Your task to perform on an android device: Open the Play Movies app and select the watchlist tab. Image 0: 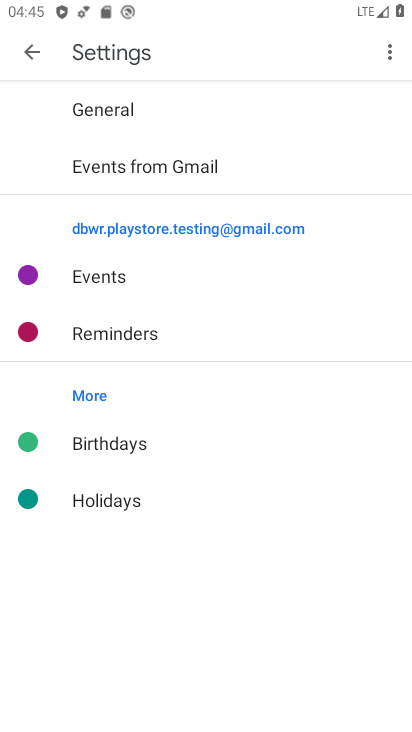
Step 0: press back button
Your task to perform on an android device: Open the Play Movies app and select the watchlist tab. Image 1: 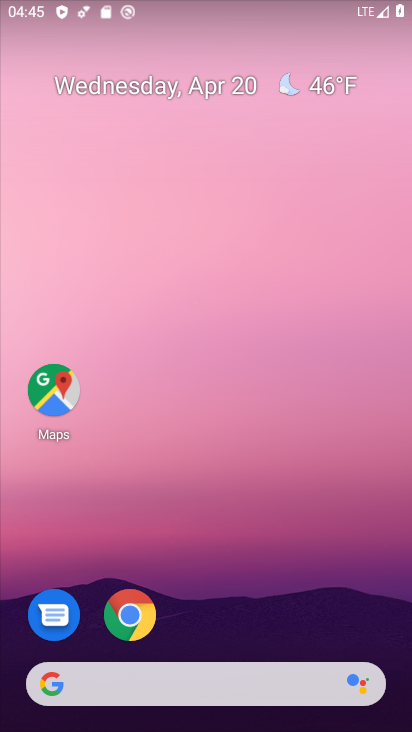
Step 1: drag from (247, 515) to (353, 205)
Your task to perform on an android device: Open the Play Movies app and select the watchlist tab. Image 2: 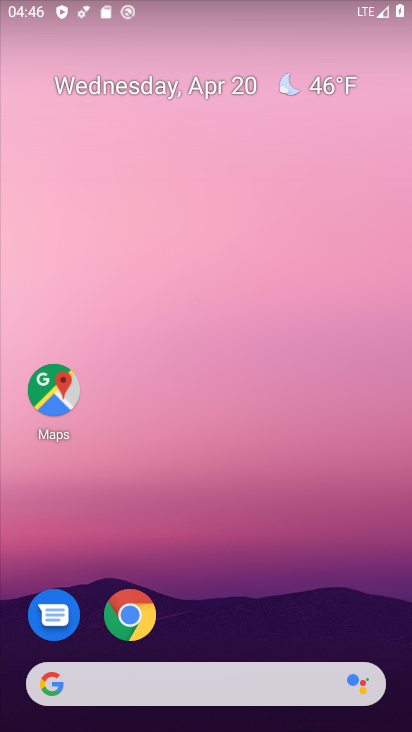
Step 2: drag from (260, 415) to (308, 63)
Your task to perform on an android device: Open the Play Movies app and select the watchlist tab. Image 3: 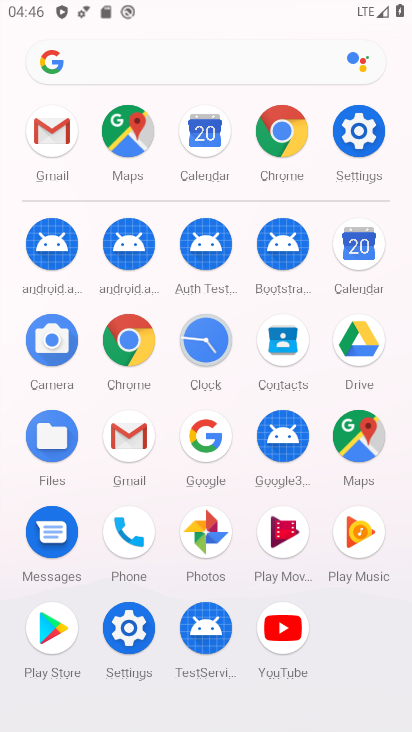
Step 3: click (287, 535)
Your task to perform on an android device: Open the Play Movies app and select the watchlist tab. Image 4: 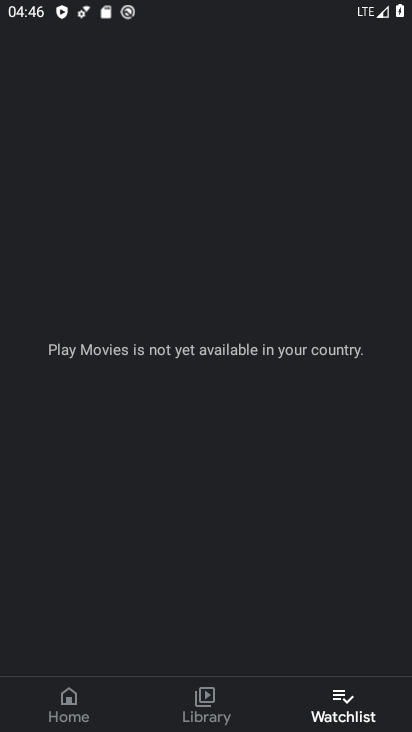
Step 4: task complete